Your task to perform on an android device: turn on improve location accuracy Image 0: 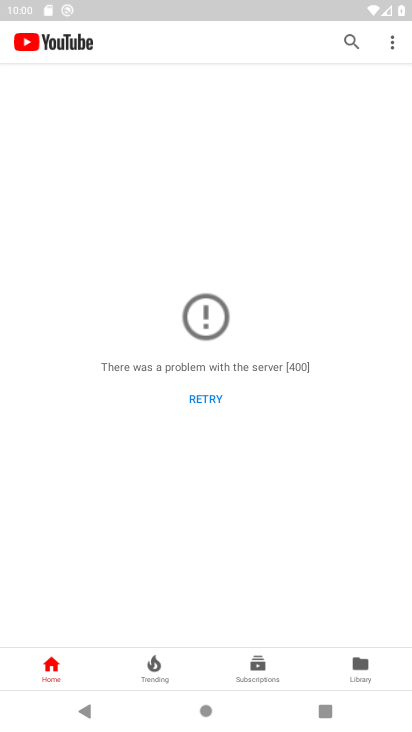
Step 0: press back button
Your task to perform on an android device: turn on improve location accuracy Image 1: 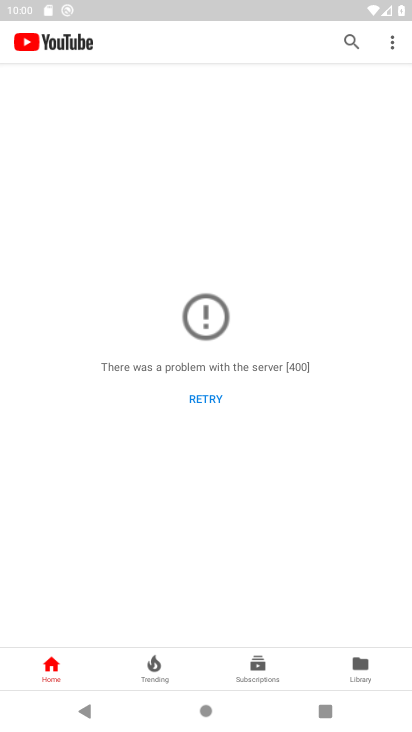
Step 1: press back button
Your task to perform on an android device: turn on improve location accuracy Image 2: 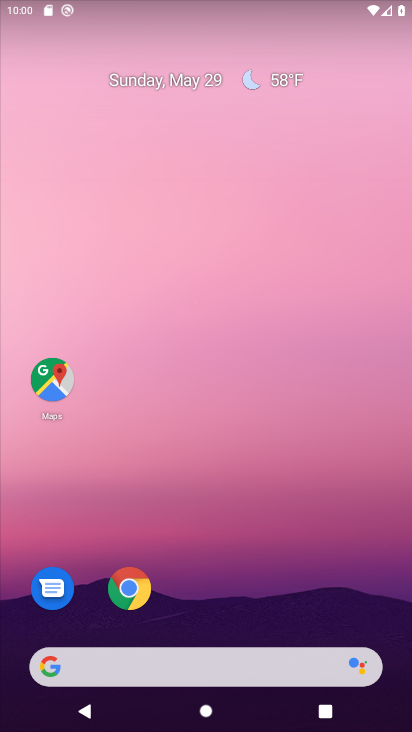
Step 2: press home button
Your task to perform on an android device: turn on improve location accuracy Image 3: 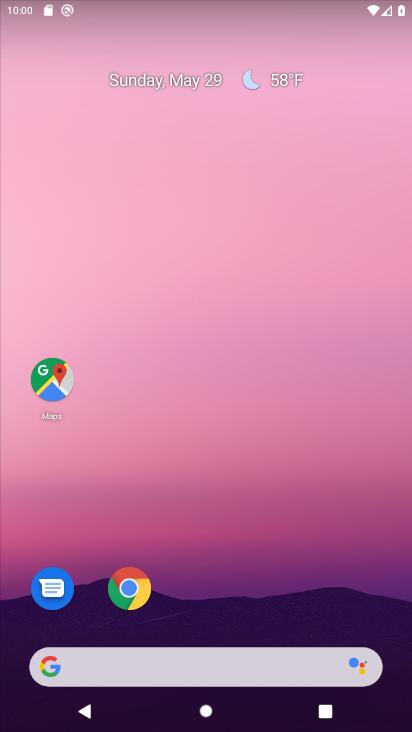
Step 3: drag from (228, 535) to (122, 3)
Your task to perform on an android device: turn on improve location accuracy Image 4: 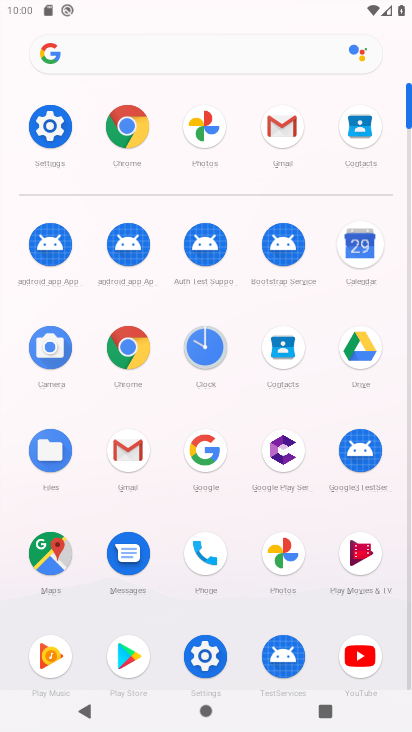
Step 4: click (51, 130)
Your task to perform on an android device: turn on improve location accuracy Image 5: 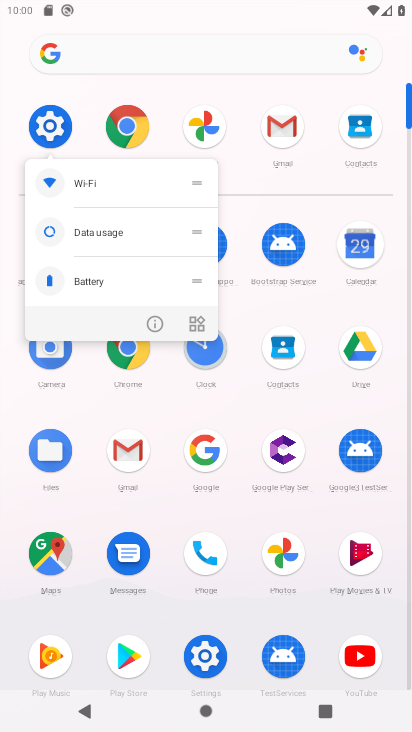
Step 5: click (53, 129)
Your task to perform on an android device: turn on improve location accuracy Image 6: 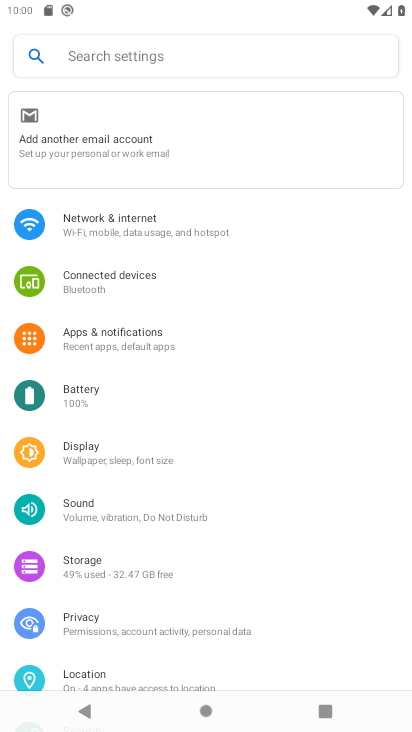
Step 6: click (87, 674)
Your task to perform on an android device: turn on improve location accuracy Image 7: 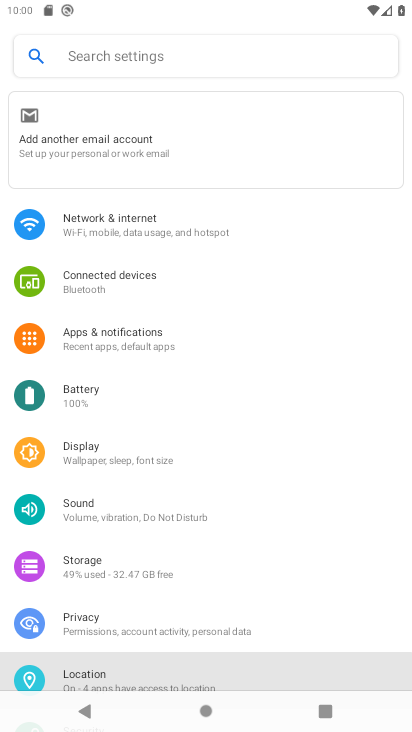
Step 7: click (94, 676)
Your task to perform on an android device: turn on improve location accuracy Image 8: 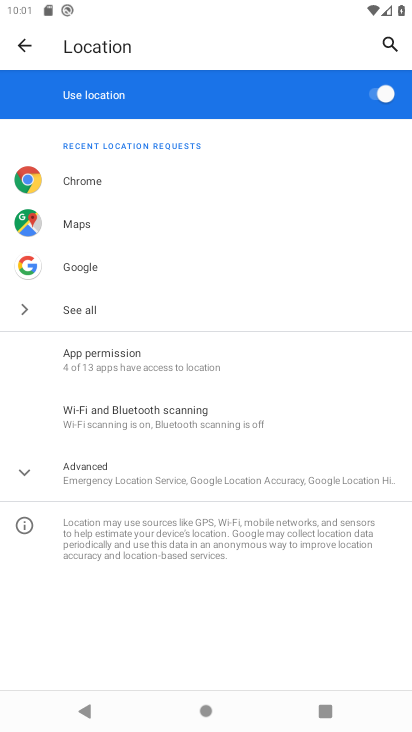
Step 8: click (95, 468)
Your task to perform on an android device: turn on improve location accuracy Image 9: 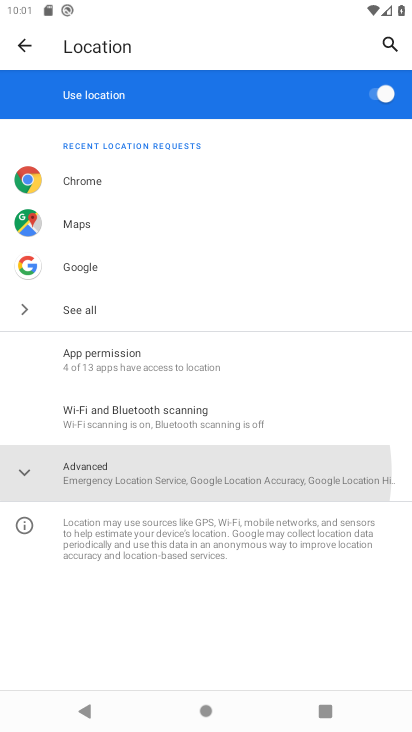
Step 9: click (95, 469)
Your task to perform on an android device: turn on improve location accuracy Image 10: 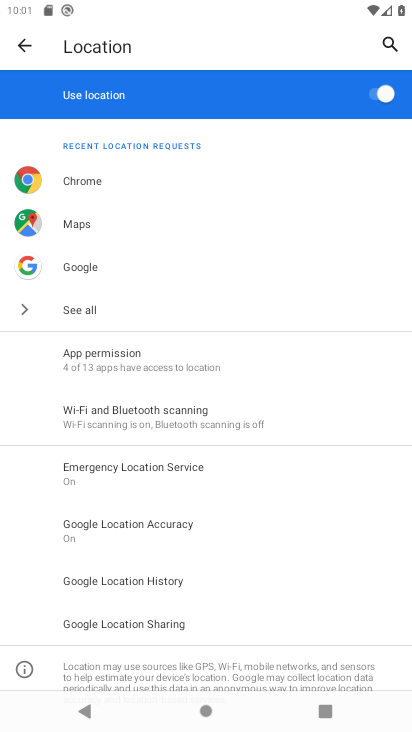
Step 10: click (119, 525)
Your task to perform on an android device: turn on improve location accuracy Image 11: 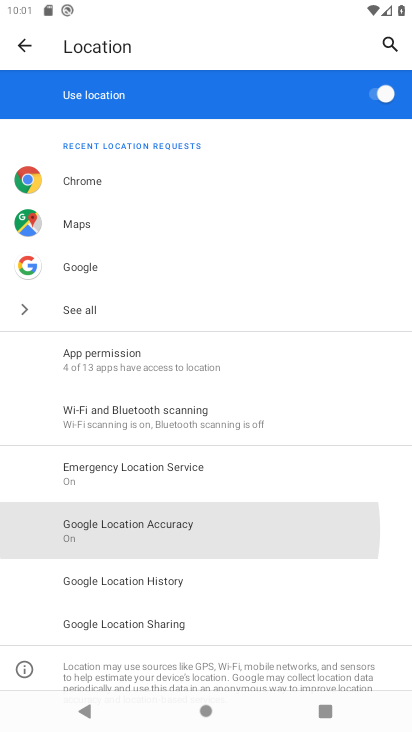
Step 11: click (122, 522)
Your task to perform on an android device: turn on improve location accuracy Image 12: 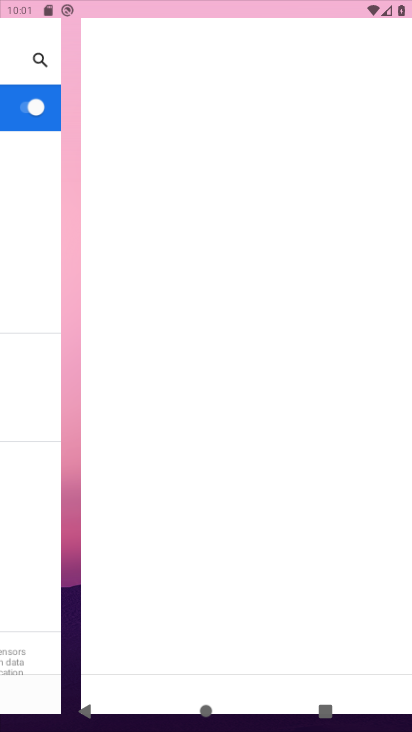
Step 12: click (124, 521)
Your task to perform on an android device: turn on improve location accuracy Image 13: 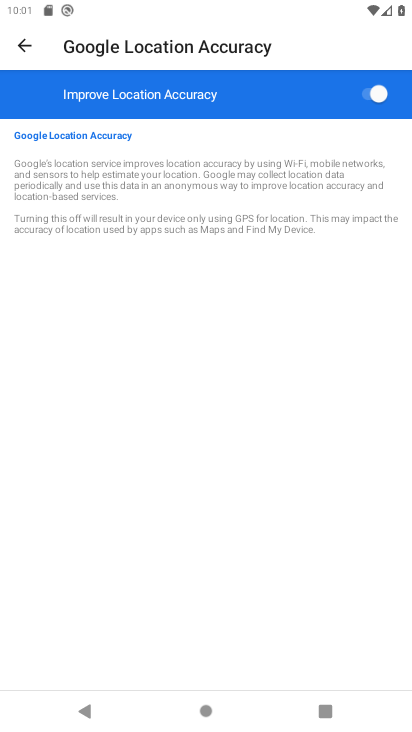
Step 13: click (383, 94)
Your task to perform on an android device: turn on improve location accuracy Image 14: 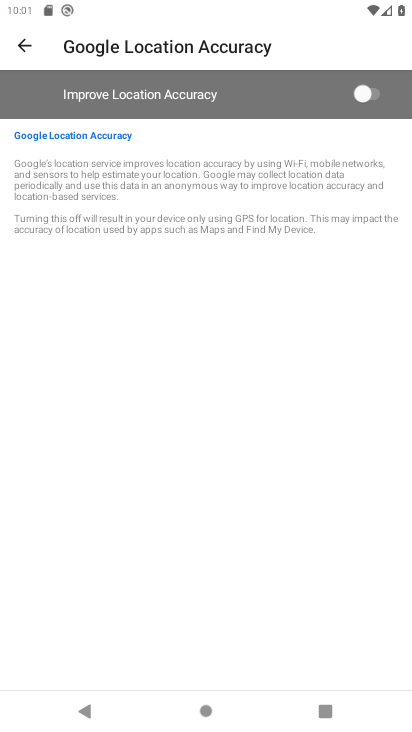
Step 14: click (357, 93)
Your task to perform on an android device: turn on improve location accuracy Image 15: 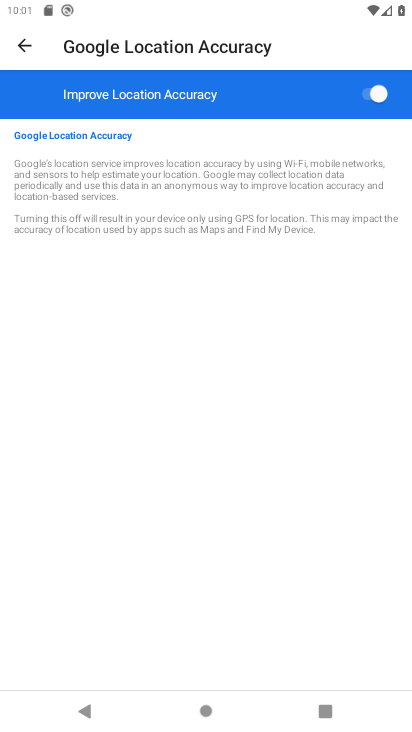
Step 15: task complete